Your task to perform on an android device: Is it going to rain today? Image 0: 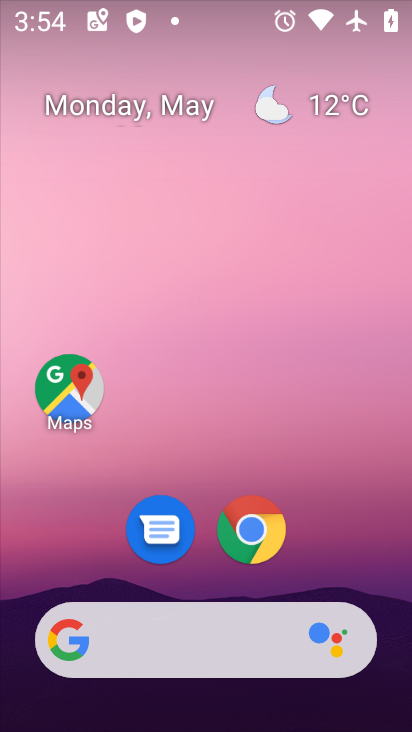
Step 0: click (169, 632)
Your task to perform on an android device: Is it going to rain today? Image 1: 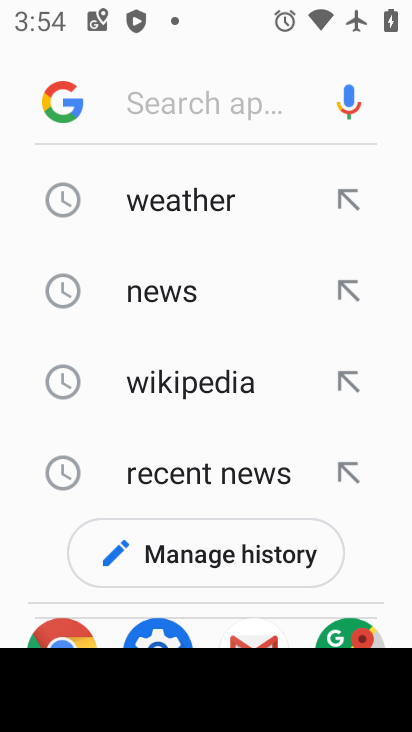
Step 1: type "is it going to rain today"
Your task to perform on an android device: Is it going to rain today? Image 2: 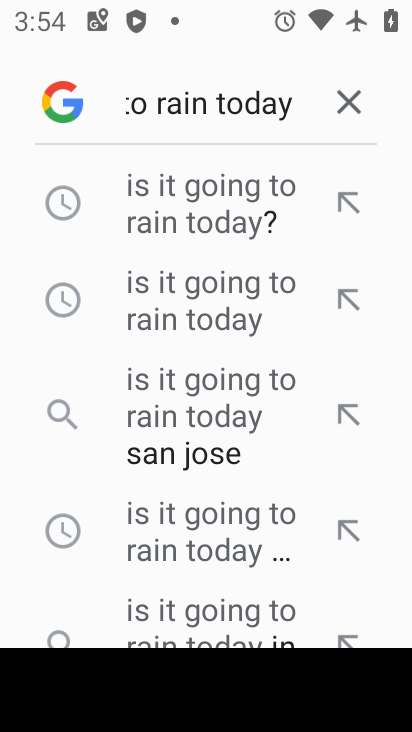
Step 2: click (206, 199)
Your task to perform on an android device: Is it going to rain today? Image 3: 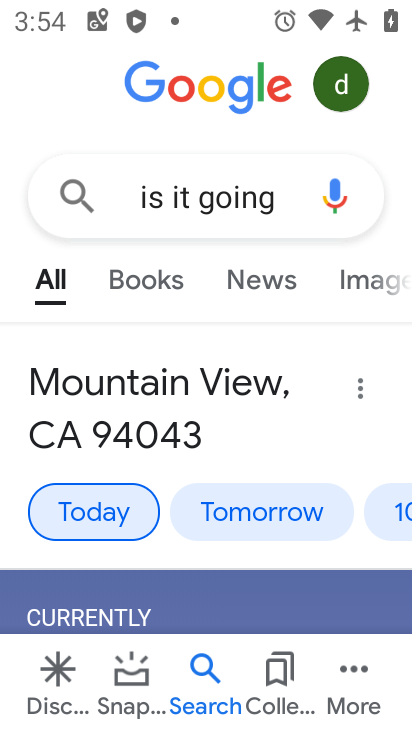
Step 3: task complete